Your task to perform on an android device: Open settings Image 0: 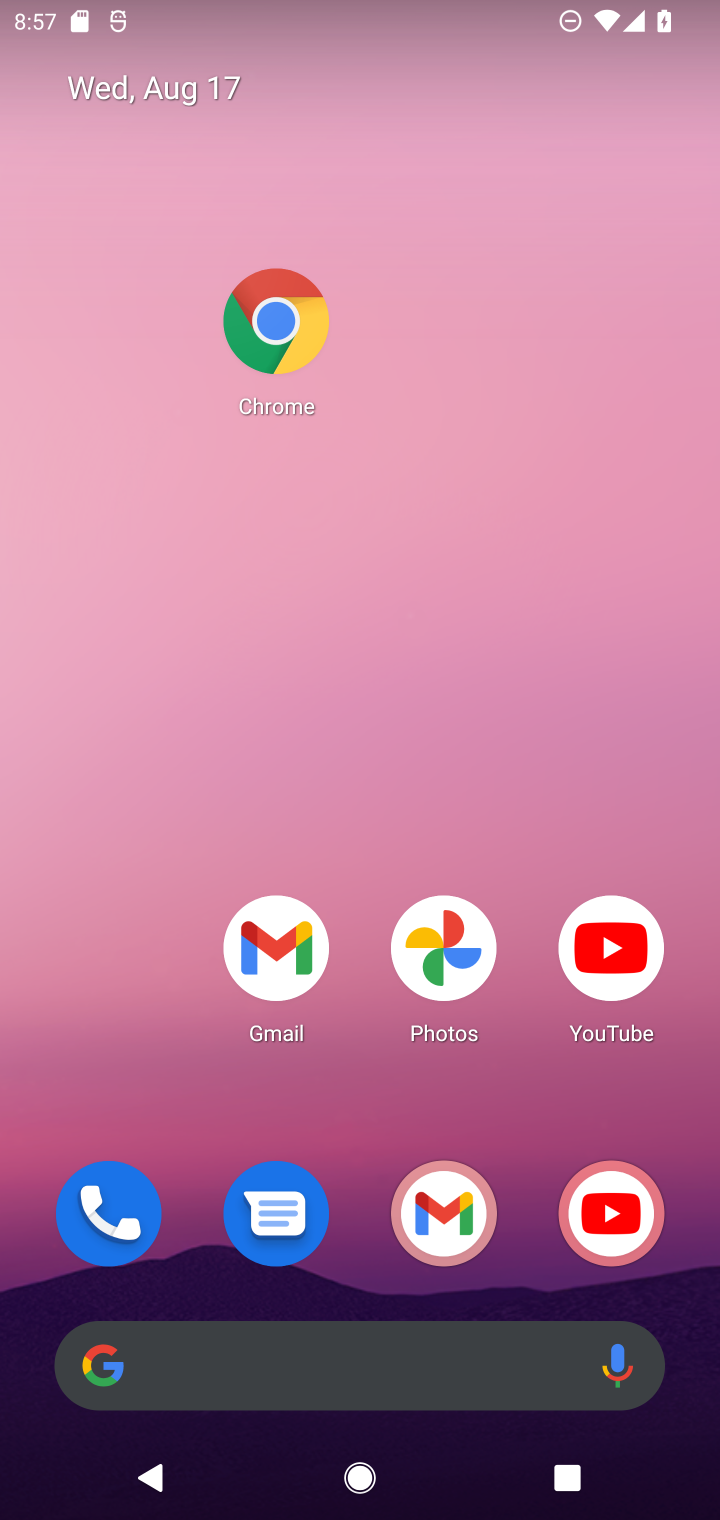
Step 0: drag from (344, 1289) to (397, 310)
Your task to perform on an android device: Open settings Image 1: 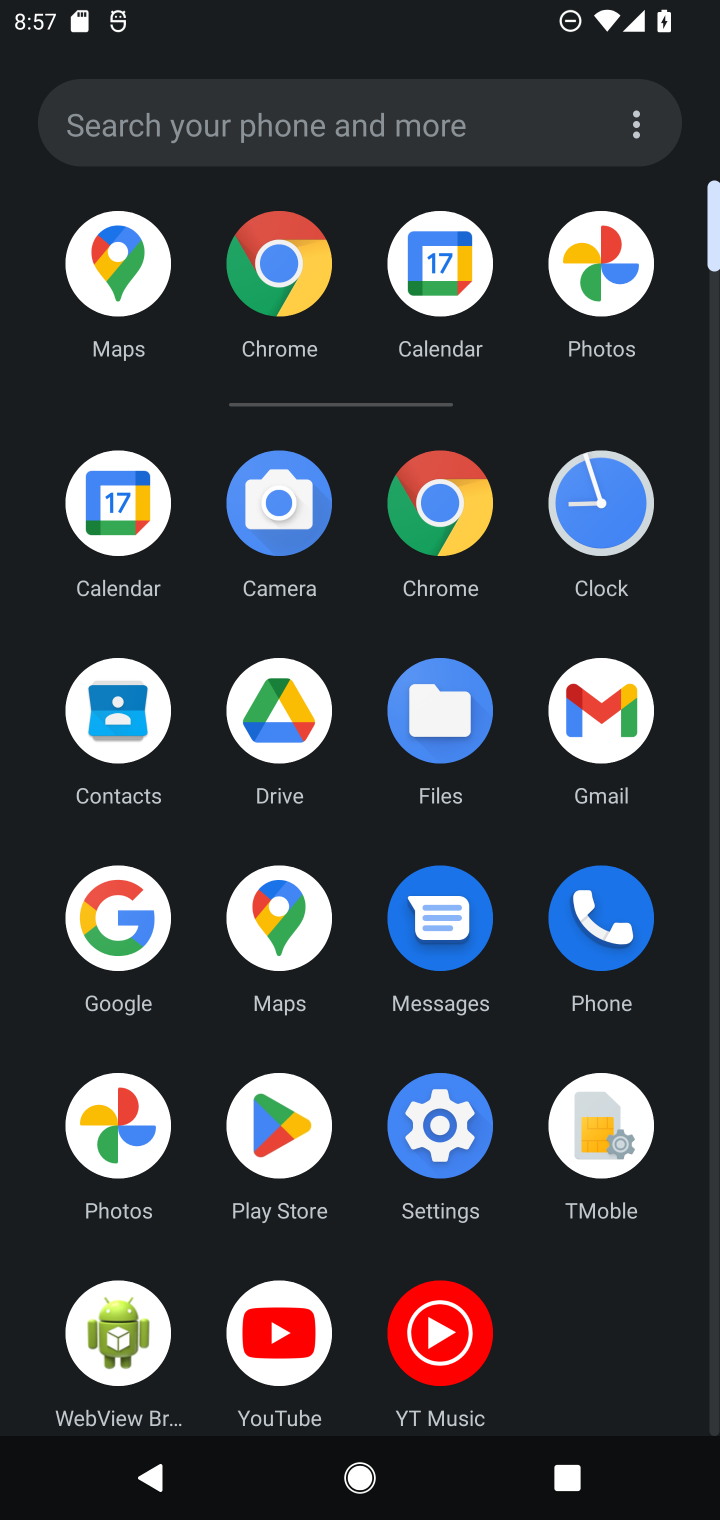
Step 1: click (441, 1114)
Your task to perform on an android device: Open settings Image 2: 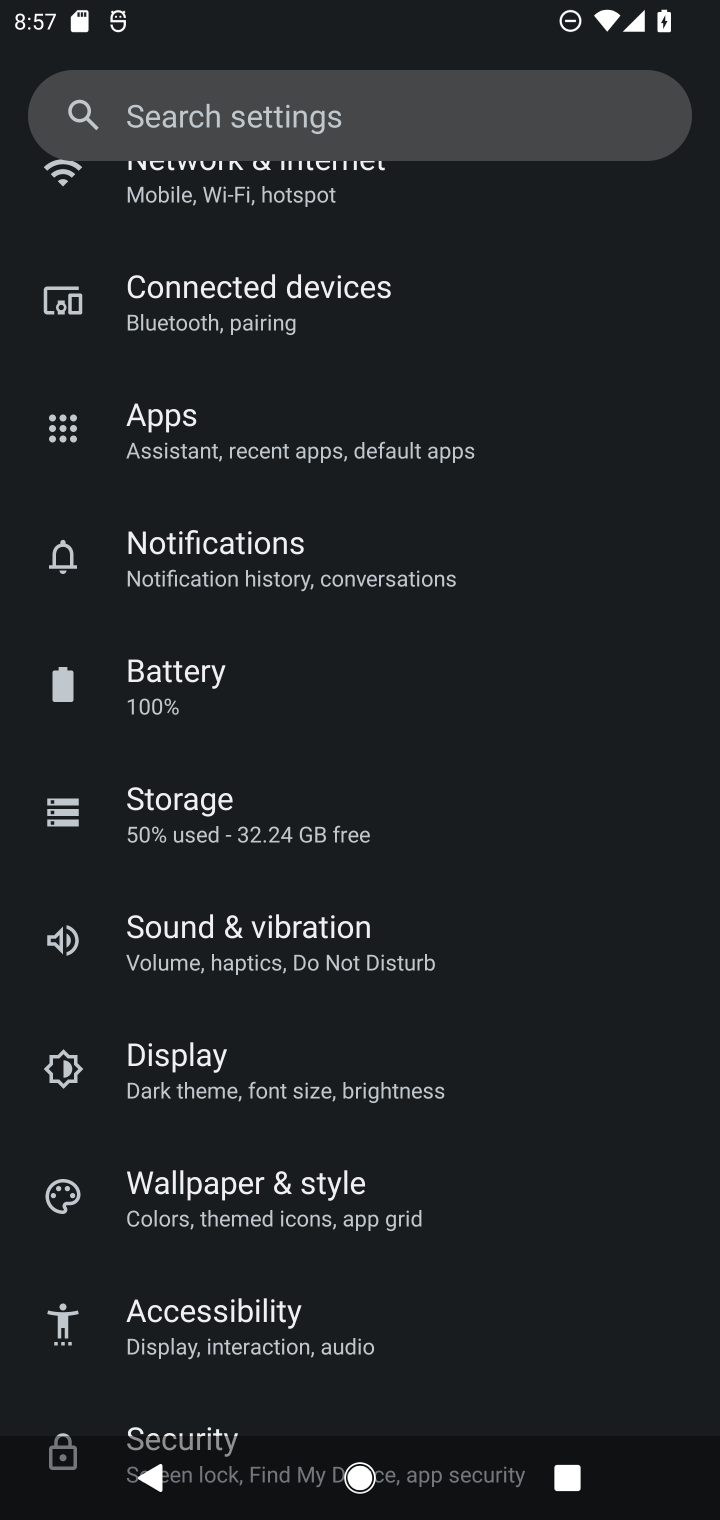
Step 2: task complete